Your task to perform on an android device: delete a single message in the gmail app Image 0: 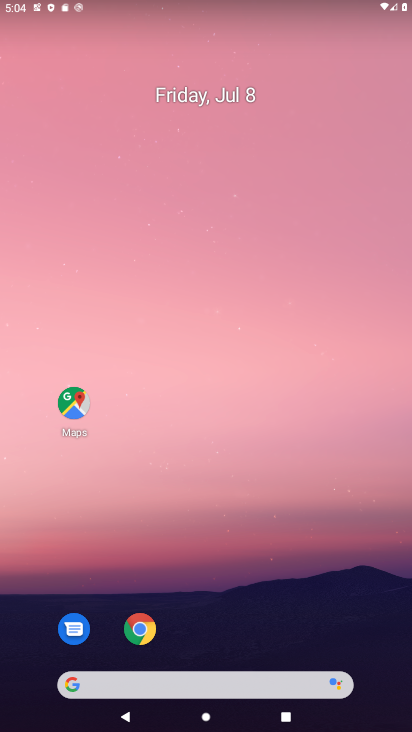
Step 0: press home button
Your task to perform on an android device: delete a single message in the gmail app Image 1: 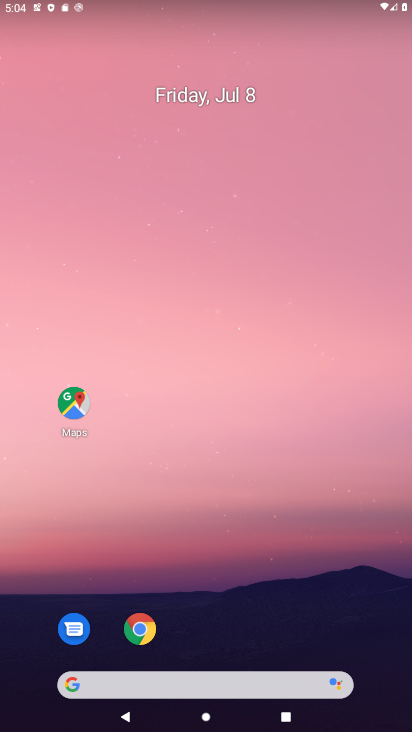
Step 1: drag from (253, 635) to (228, 143)
Your task to perform on an android device: delete a single message in the gmail app Image 2: 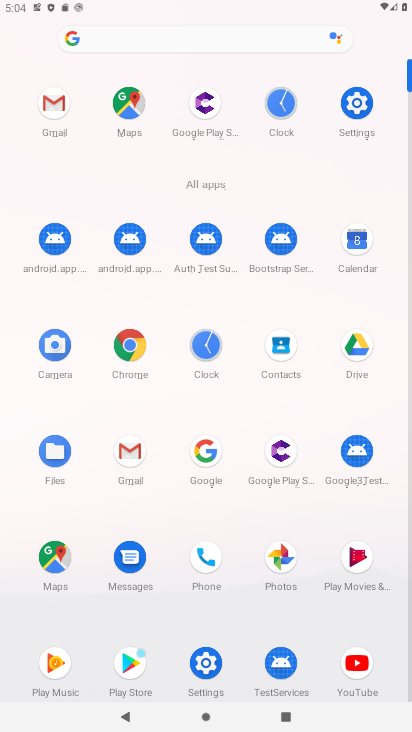
Step 2: click (58, 103)
Your task to perform on an android device: delete a single message in the gmail app Image 3: 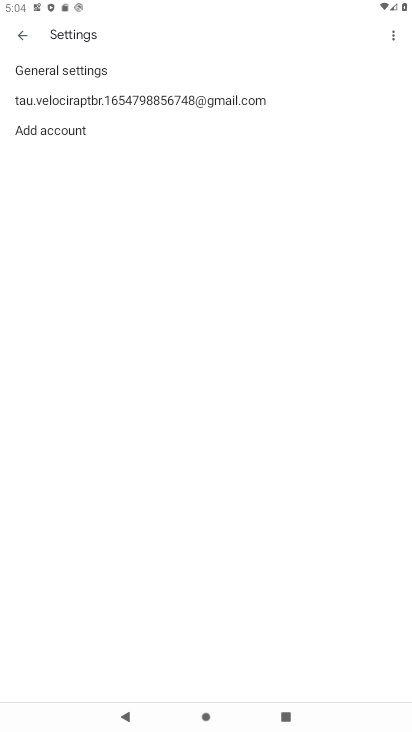
Step 3: press back button
Your task to perform on an android device: delete a single message in the gmail app Image 4: 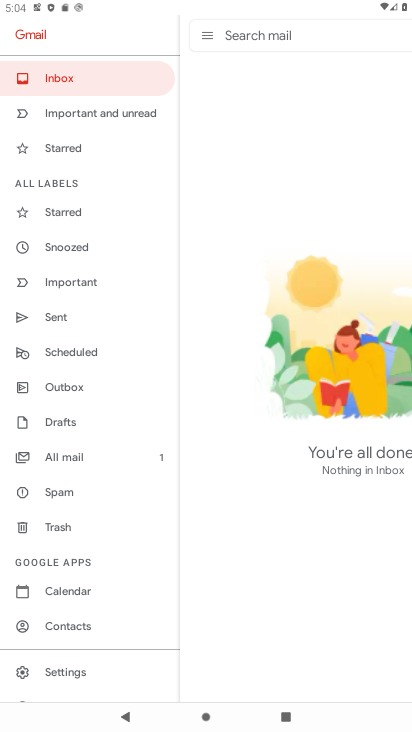
Step 4: click (88, 461)
Your task to perform on an android device: delete a single message in the gmail app Image 5: 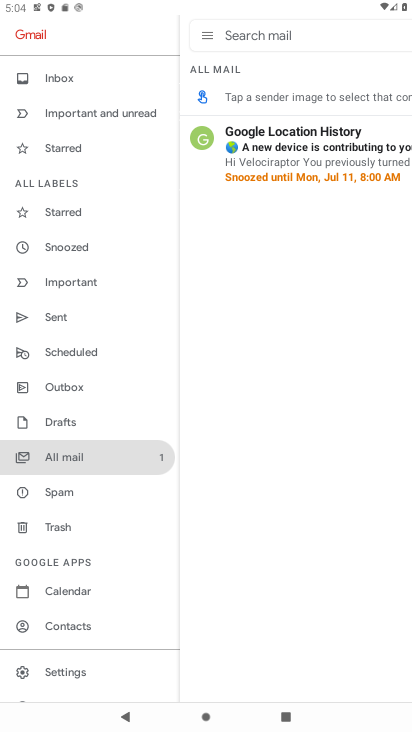
Step 5: click (286, 152)
Your task to perform on an android device: delete a single message in the gmail app Image 6: 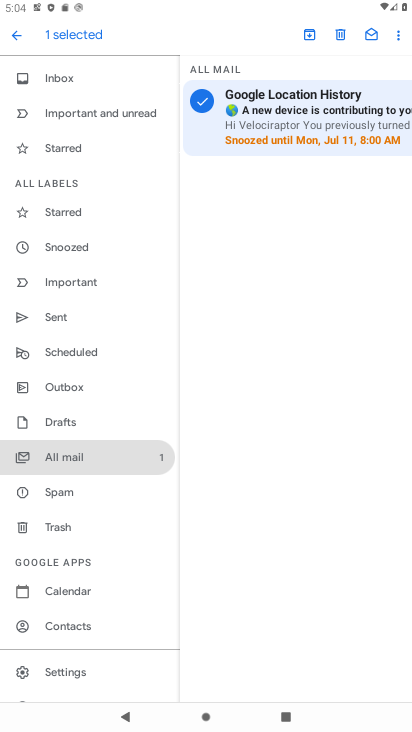
Step 6: click (344, 29)
Your task to perform on an android device: delete a single message in the gmail app Image 7: 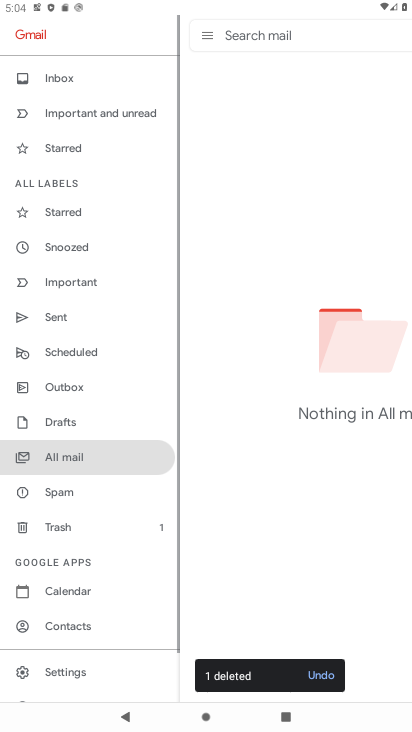
Step 7: task complete